Your task to perform on an android device: toggle improve location accuracy Image 0: 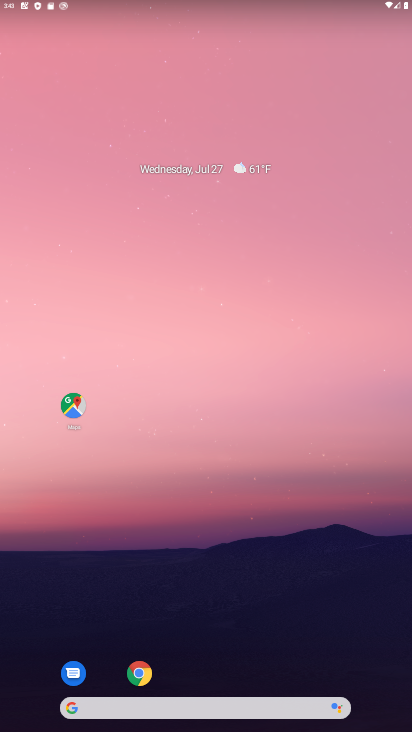
Step 0: drag from (276, 660) to (180, 261)
Your task to perform on an android device: toggle improve location accuracy Image 1: 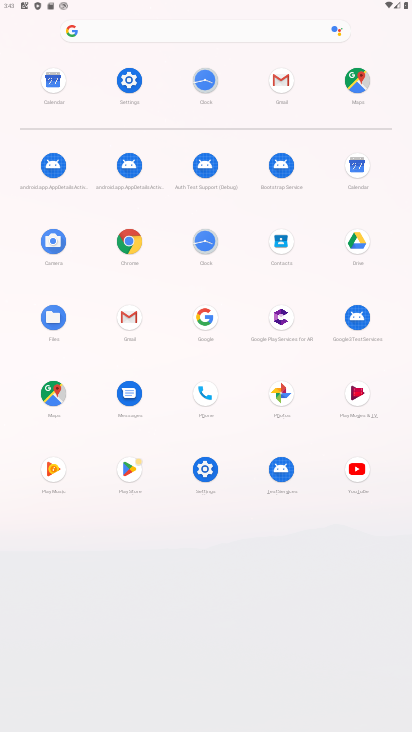
Step 1: click (211, 473)
Your task to perform on an android device: toggle improve location accuracy Image 2: 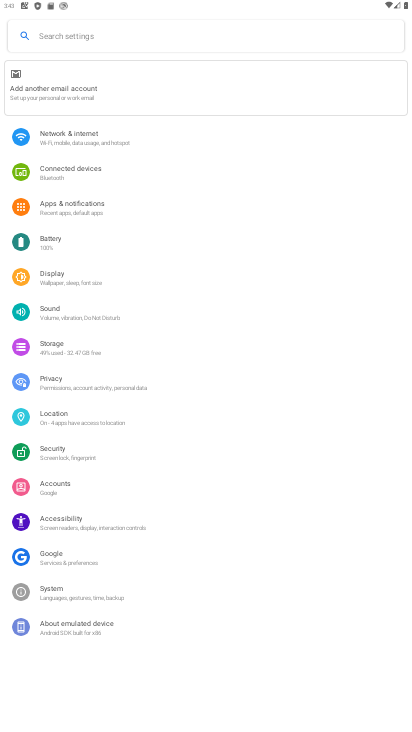
Step 2: click (47, 422)
Your task to perform on an android device: toggle improve location accuracy Image 3: 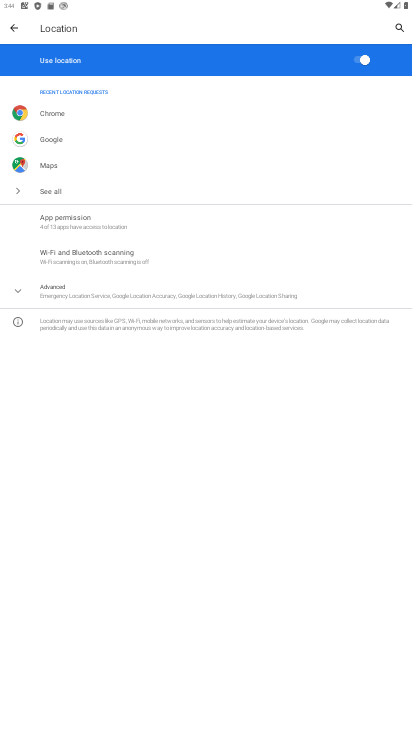
Step 3: click (54, 287)
Your task to perform on an android device: toggle improve location accuracy Image 4: 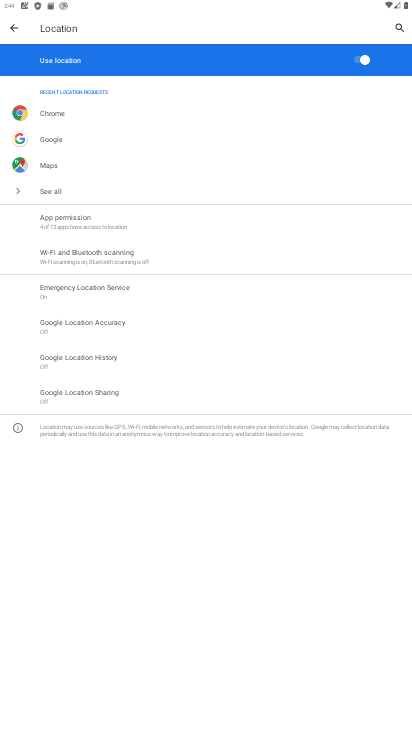
Step 4: click (106, 326)
Your task to perform on an android device: toggle improve location accuracy Image 5: 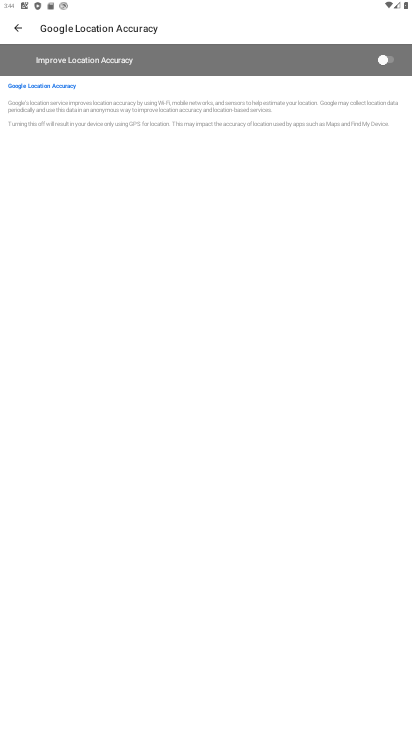
Step 5: click (387, 60)
Your task to perform on an android device: toggle improve location accuracy Image 6: 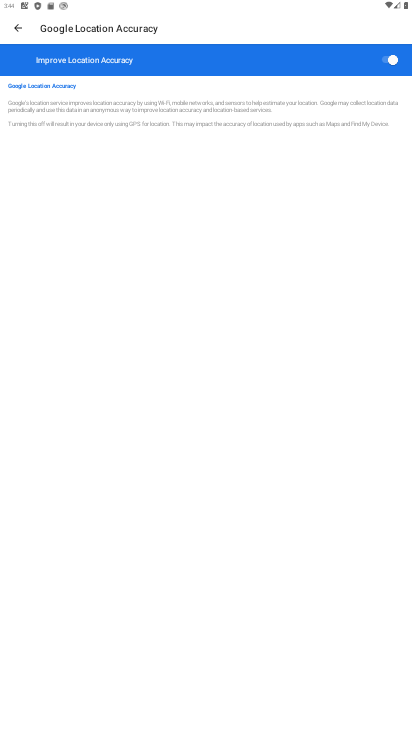
Step 6: task complete